Your task to perform on an android device: Search for the new Nintendo switch on Best Buy Image 0: 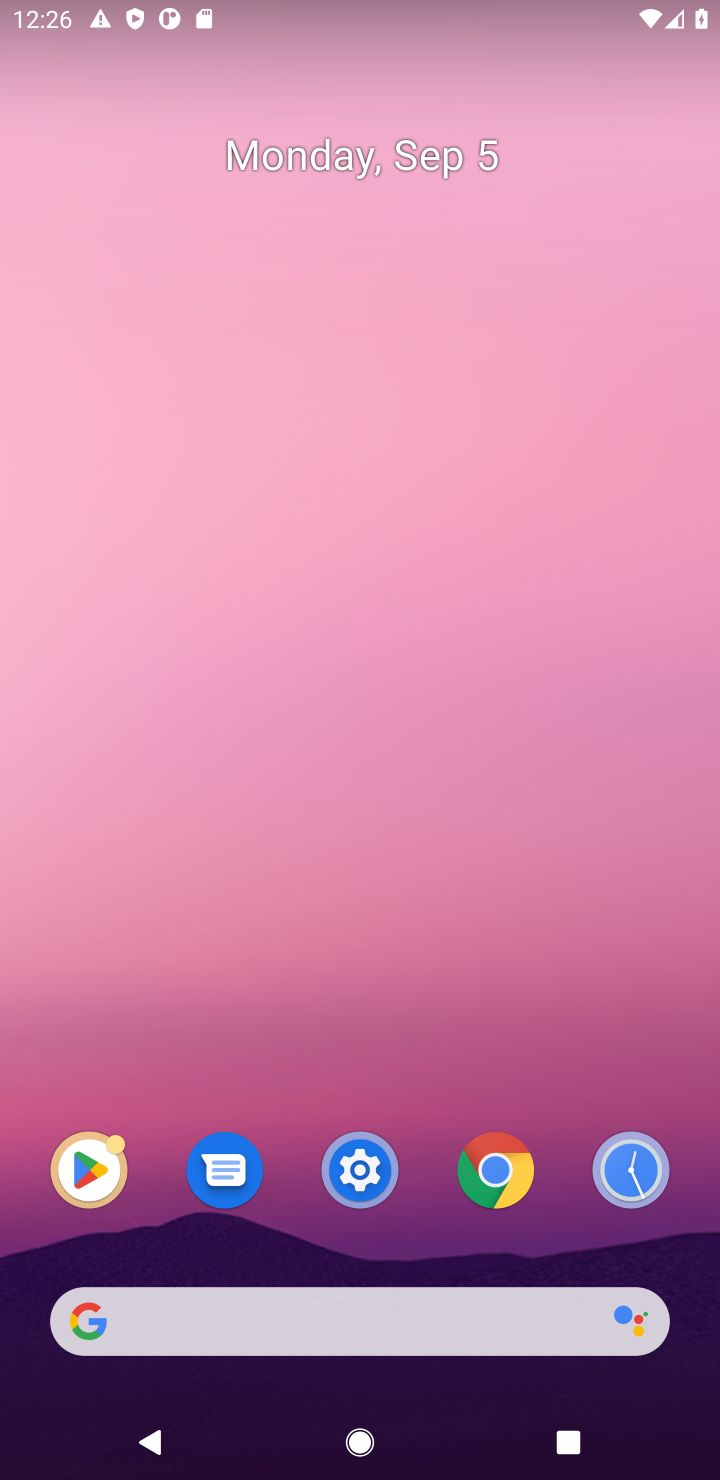
Step 0: click (469, 1325)
Your task to perform on an android device: Search for the new Nintendo switch on Best Buy Image 1: 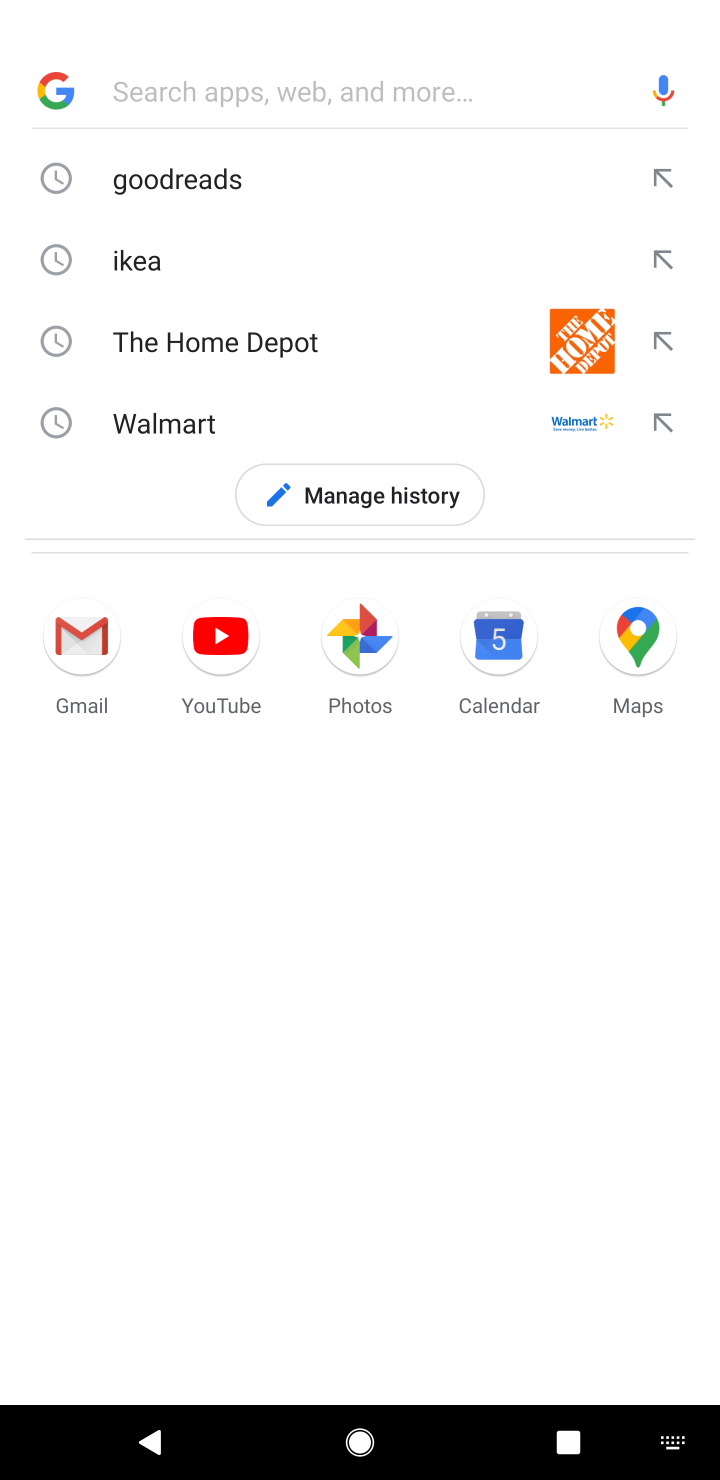
Step 1: type "Best Buy"
Your task to perform on an android device: Search for the new Nintendo switch on Best Buy Image 2: 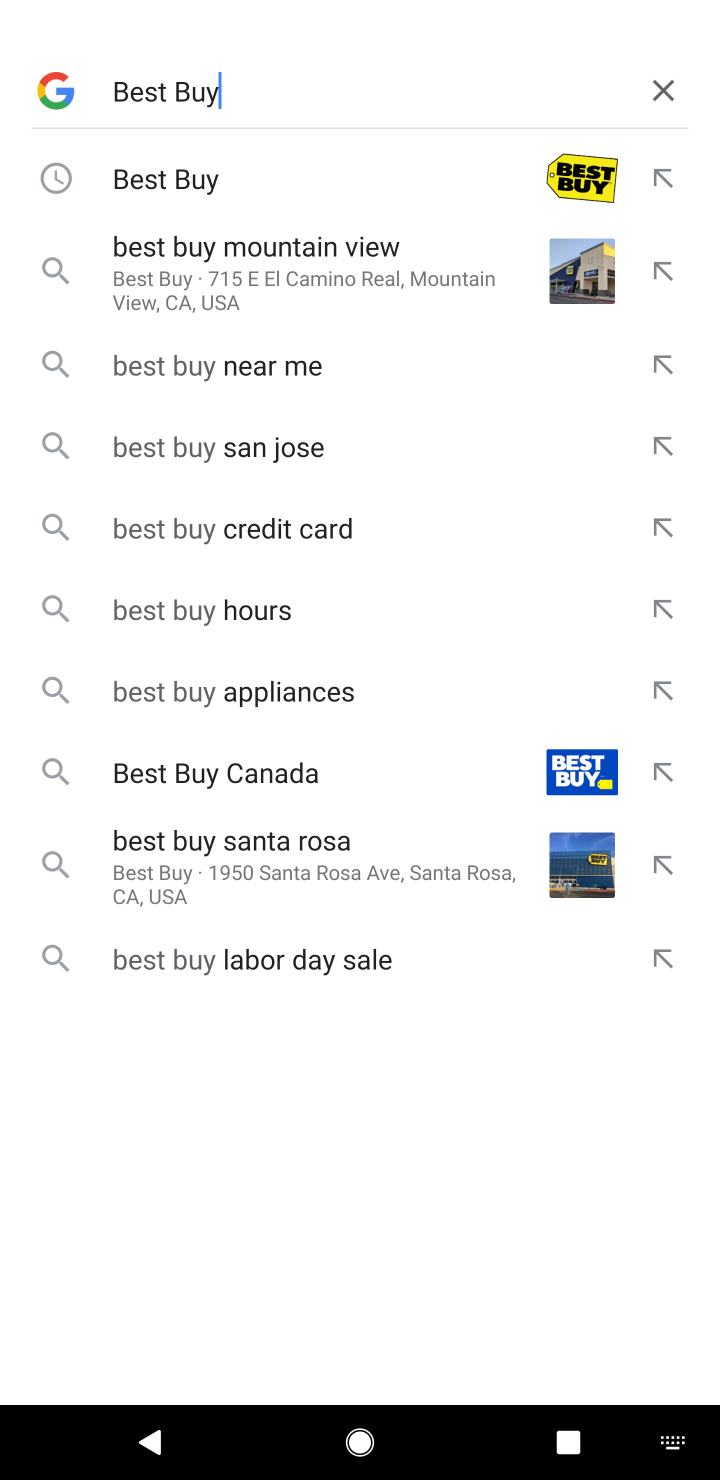
Step 2: click (220, 196)
Your task to perform on an android device: Search for the new Nintendo switch on Best Buy Image 3: 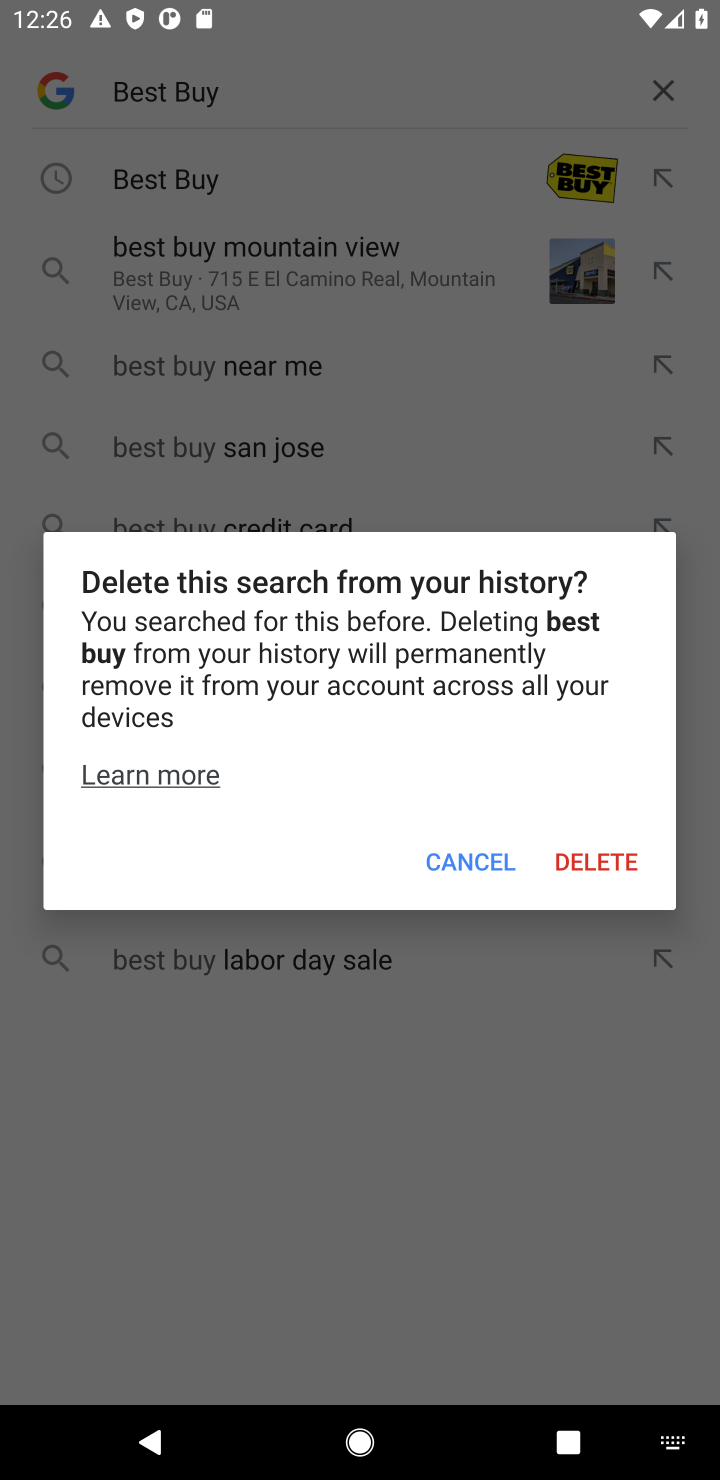
Step 3: click (444, 850)
Your task to perform on an android device: Search for the new Nintendo switch on Best Buy Image 4: 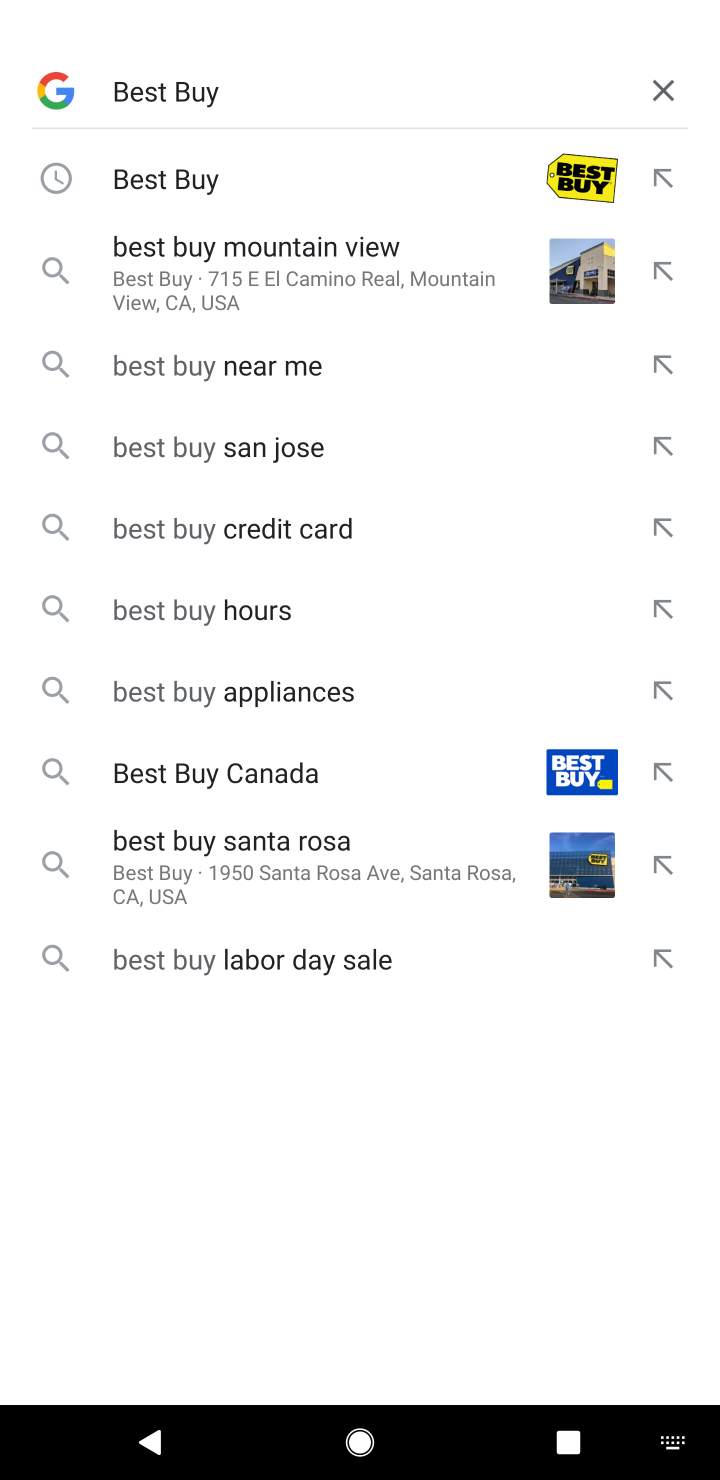
Step 4: click (166, 177)
Your task to perform on an android device: Search for the new Nintendo switch on Best Buy Image 5: 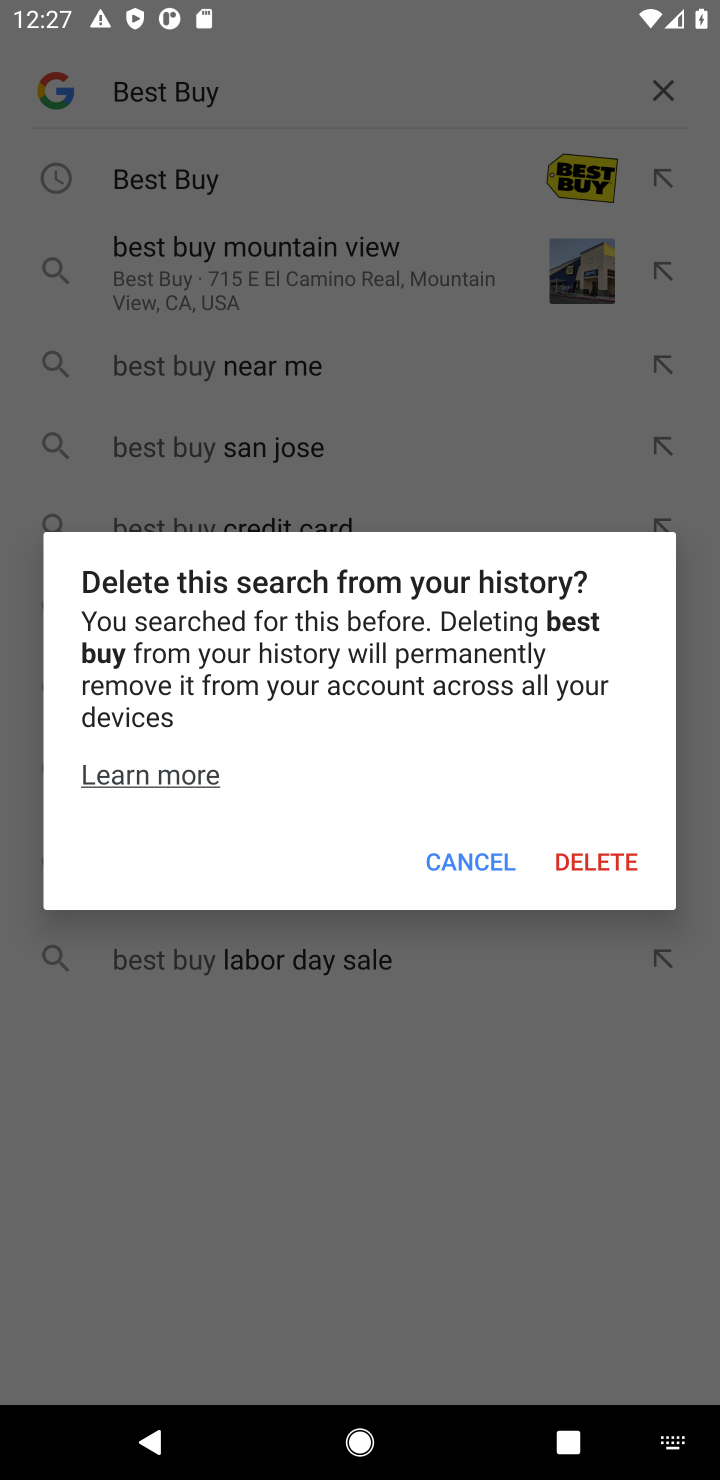
Step 5: click (458, 854)
Your task to perform on an android device: Search for the new Nintendo switch on Best Buy Image 6: 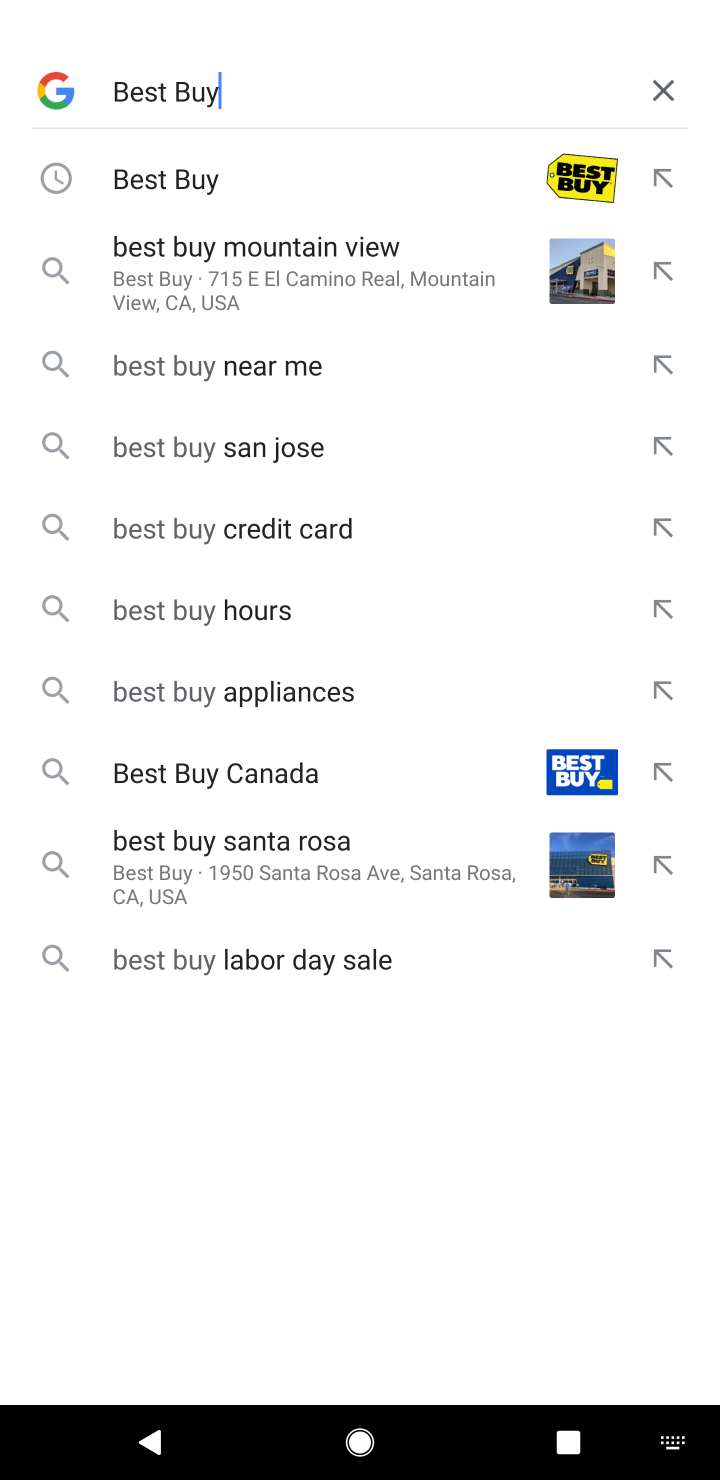
Step 6: click (224, 171)
Your task to perform on an android device: Search for the new Nintendo switch on Best Buy Image 7: 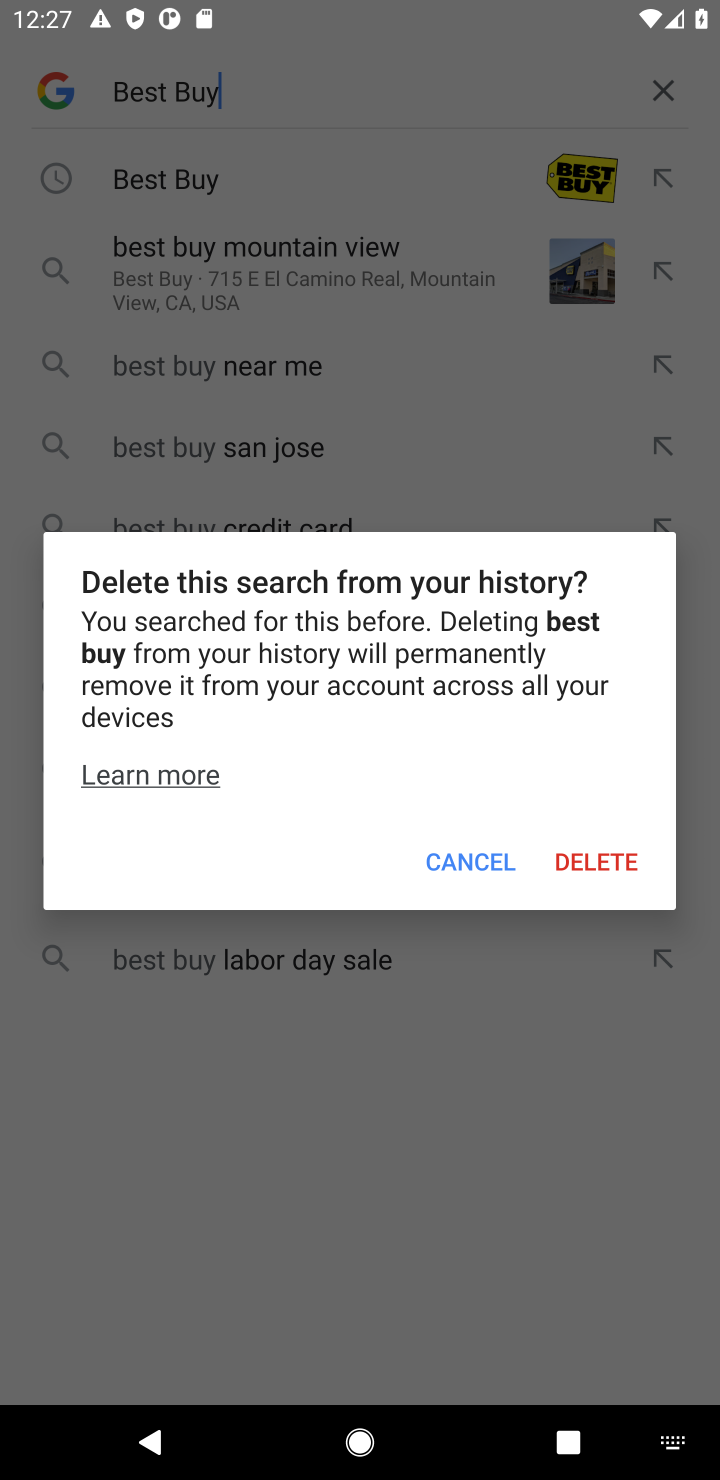
Step 7: click (224, 171)
Your task to perform on an android device: Search for the new Nintendo switch on Best Buy Image 8: 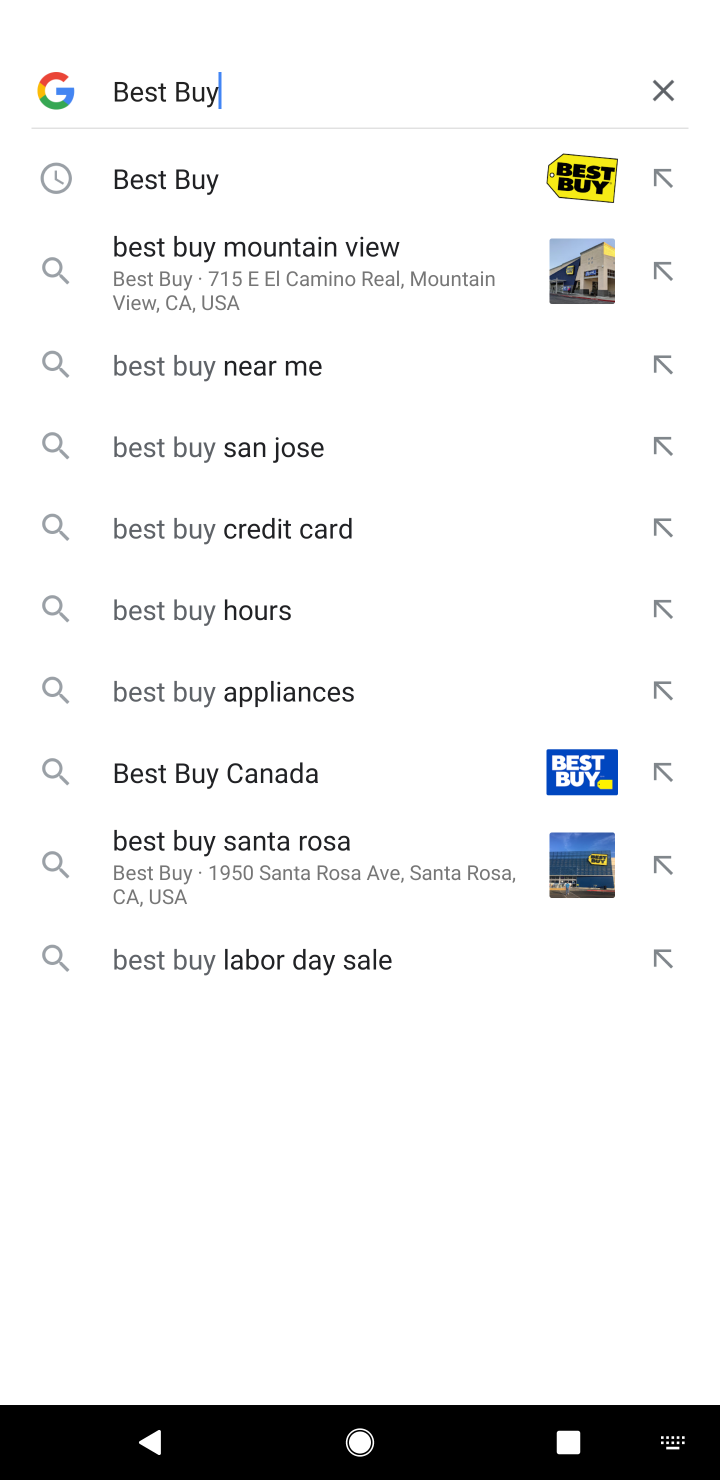
Step 8: click (222, 181)
Your task to perform on an android device: Search for the new Nintendo switch on Best Buy Image 9: 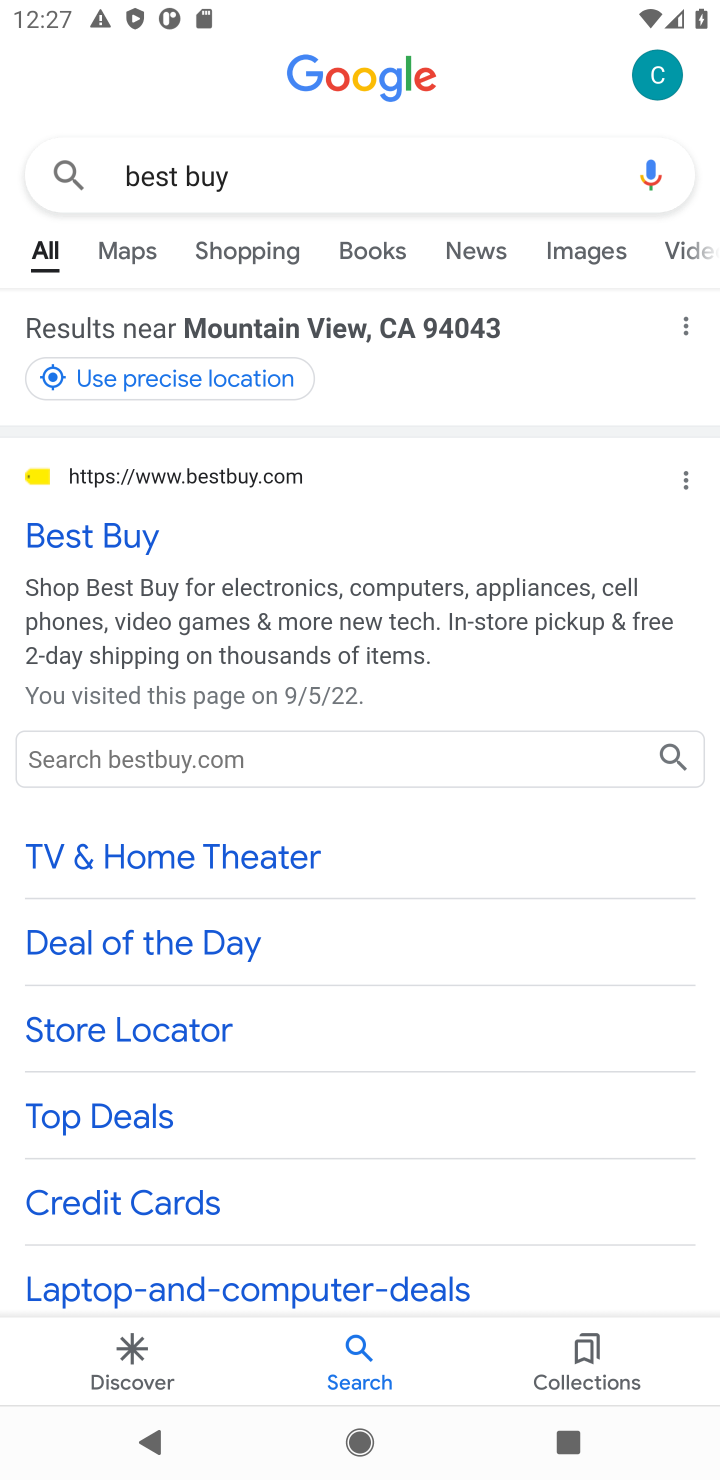
Step 9: click (113, 527)
Your task to perform on an android device: Search for the new Nintendo switch on Best Buy Image 10: 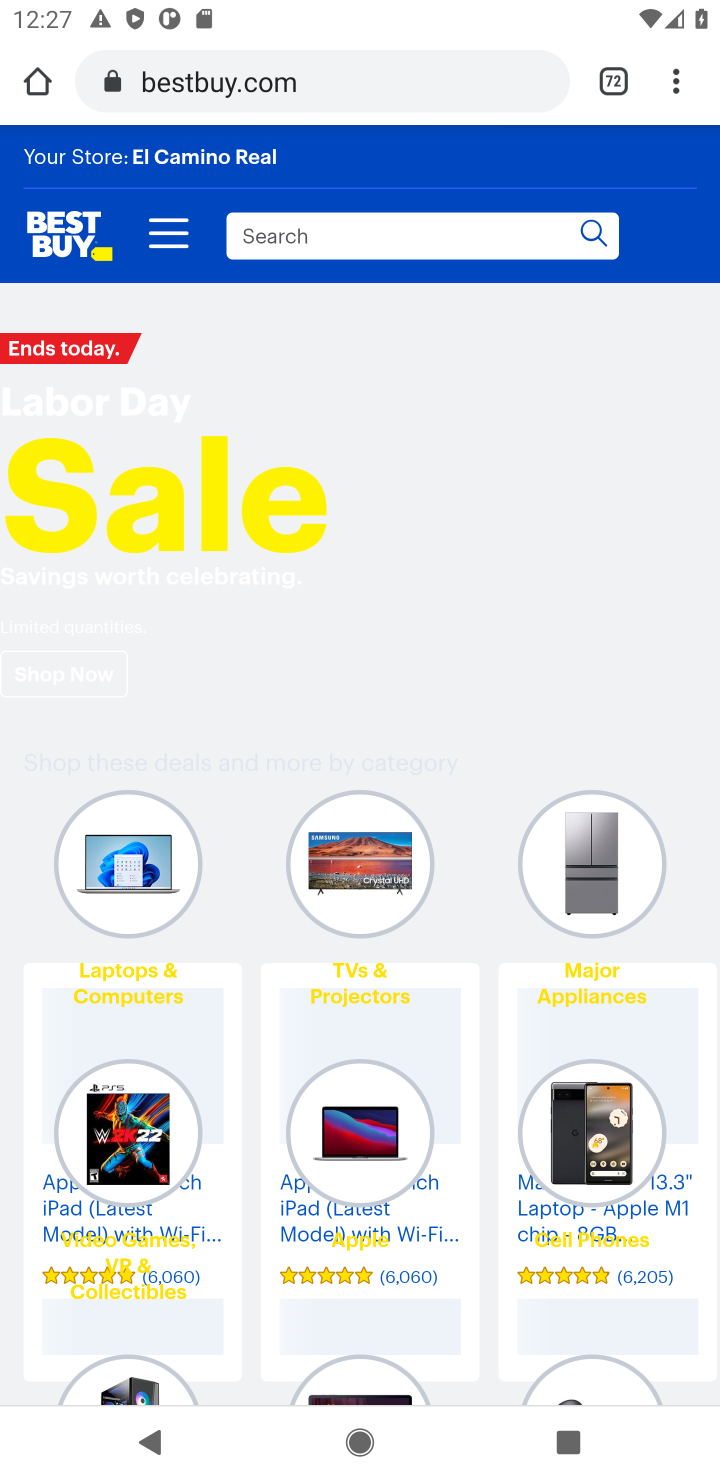
Step 10: click (398, 239)
Your task to perform on an android device: Search for the new Nintendo switch on Best Buy Image 11: 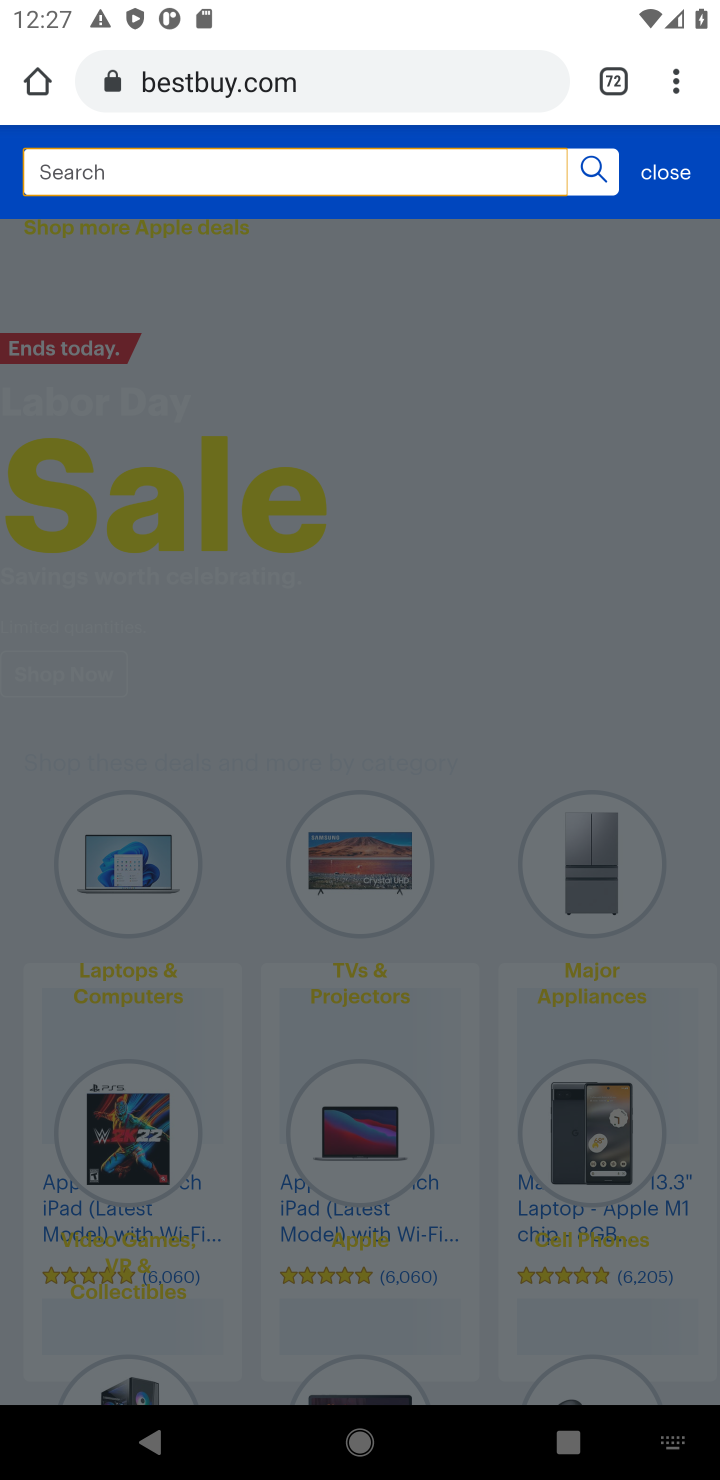
Step 11: type "Nintendo switch"
Your task to perform on an android device: Search for the new Nintendo switch on Best Buy Image 12: 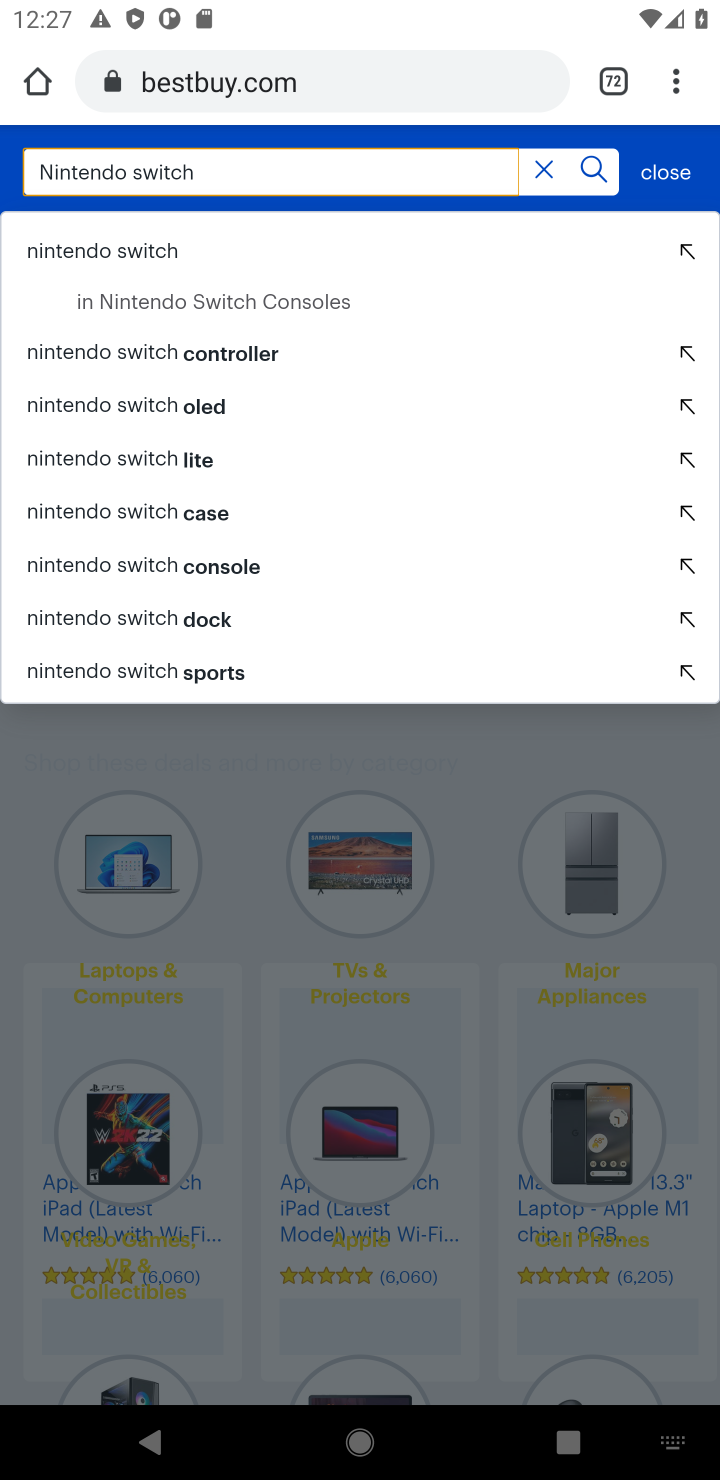
Step 12: click (193, 251)
Your task to perform on an android device: Search for the new Nintendo switch on Best Buy Image 13: 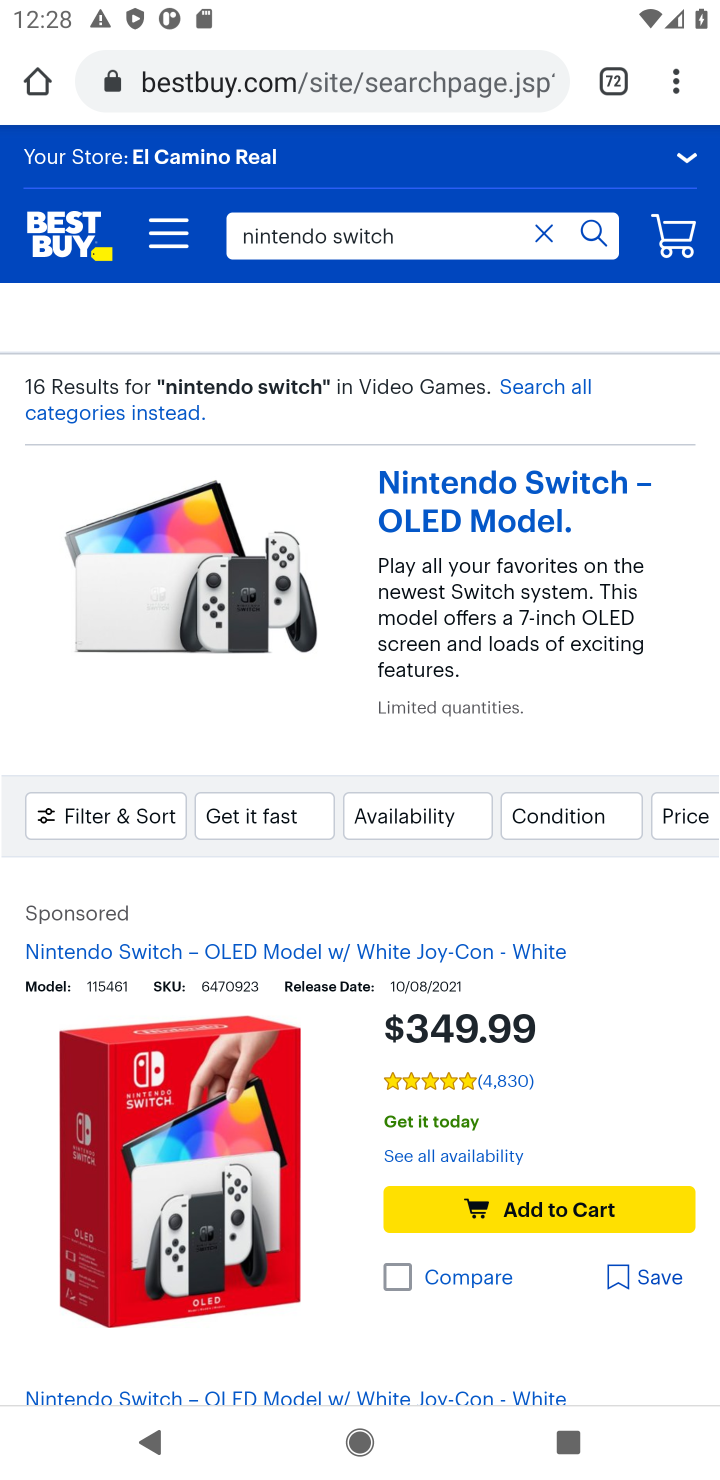
Step 13: task complete